Your task to perform on an android device: Clear all items from cart on walmart.com. Add usb-c to the cart on walmart.com Image 0: 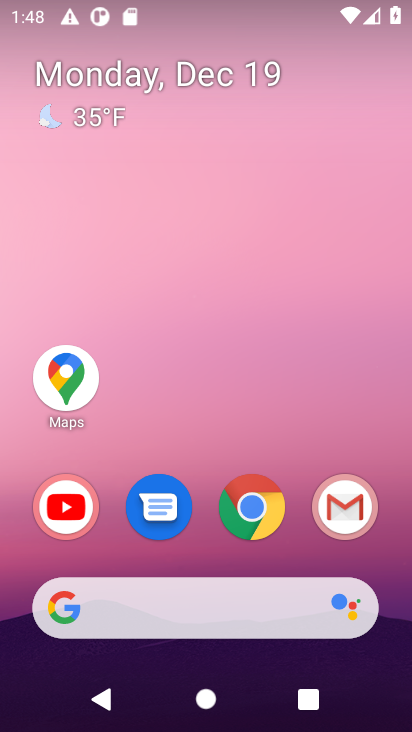
Step 0: click (247, 507)
Your task to perform on an android device: Clear all items from cart on walmart.com. Add usb-c to the cart on walmart.com Image 1: 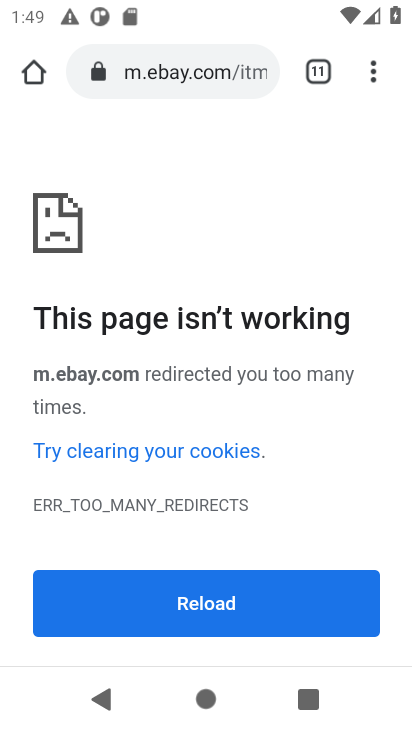
Step 1: click (164, 67)
Your task to perform on an android device: Clear all items from cart on walmart.com. Add usb-c to the cart on walmart.com Image 2: 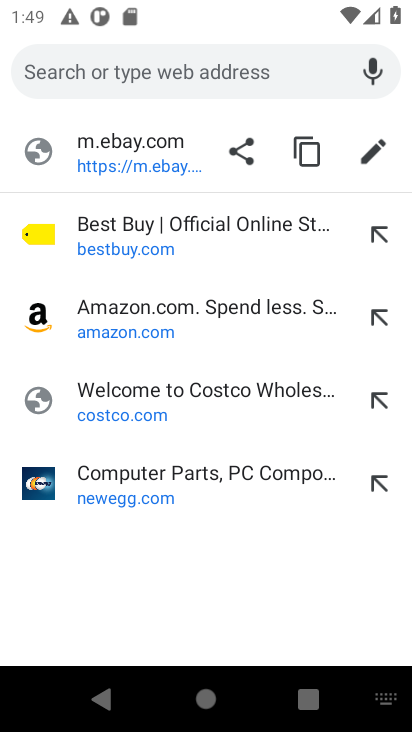
Step 2: type "walmart.com"
Your task to perform on an android device: Clear all items from cart on walmart.com. Add usb-c to the cart on walmart.com Image 3: 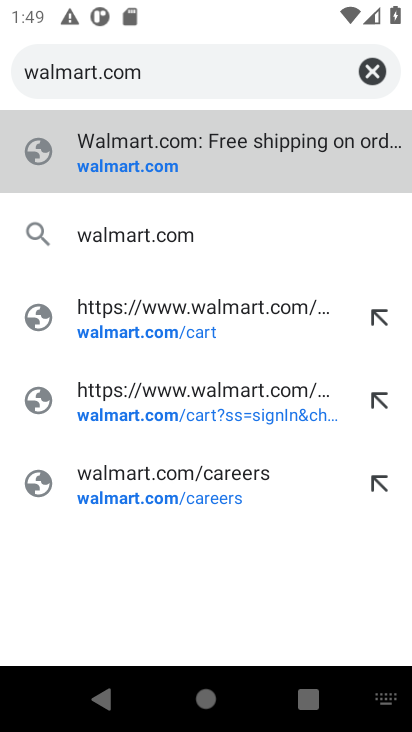
Step 3: click (121, 159)
Your task to perform on an android device: Clear all items from cart on walmart.com. Add usb-c to the cart on walmart.com Image 4: 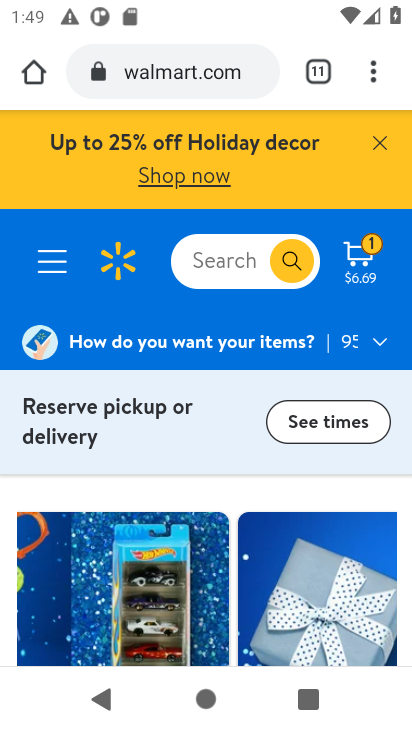
Step 4: click (372, 258)
Your task to perform on an android device: Clear all items from cart on walmart.com. Add usb-c to the cart on walmart.com Image 5: 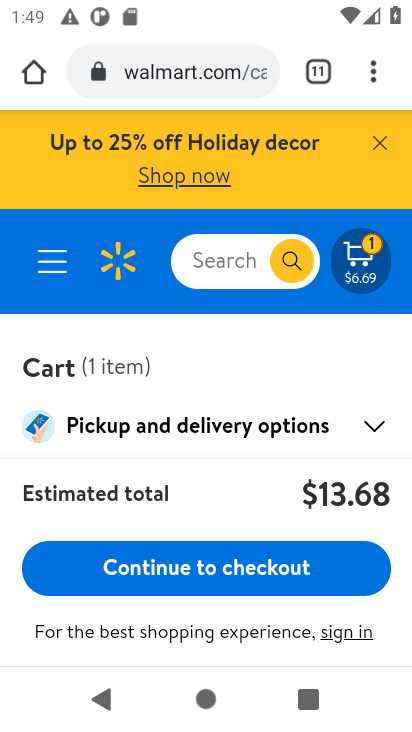
Step 5: drag from (226, 405) to (208, 182)
Your task to perform on an android device: Clear all items from cart on walmart.com. Add usb-c to the cart on walmart.com Image 6: 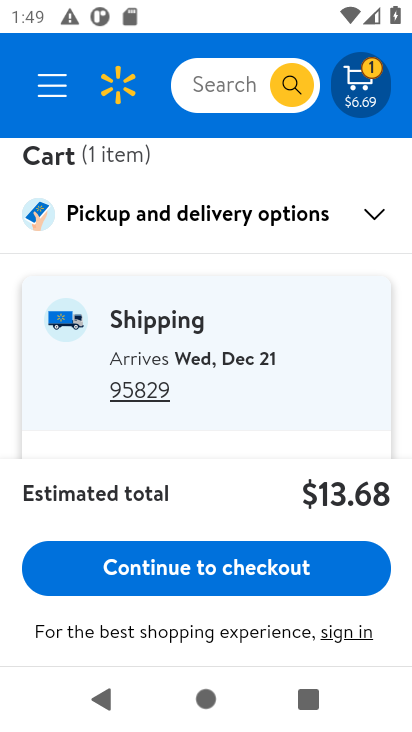
Step 6: drag from (192, 291) to (192, 152)
Your task to perform on an android device: Clear all items from cart on walmart.com. Add usb-c to the cart on walmart.com Image 7: 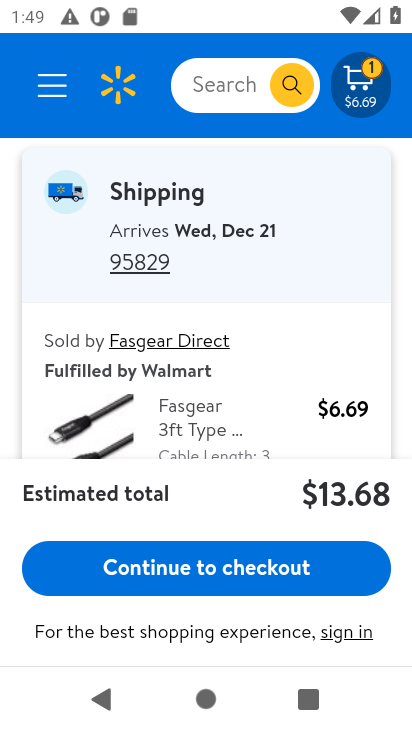
Step 7: drag from (168, 342) to (150, 151)
Your task to perform on an android device: Clear all items from cart on walmart.com. Add usb-c to the cart on walmart.com Image 8: 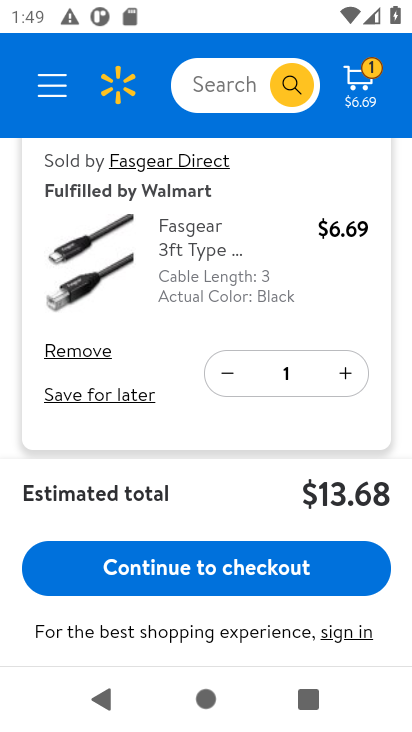
Step 8: click (76, 354)
Your task to perform on an android device: Clear all items from cart on walmart.com. Add usb-c to the cart on walmart.com Image 9: 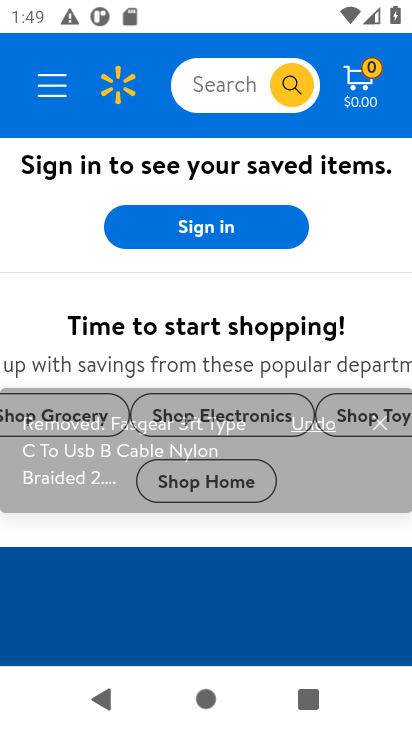
Step 9: drag from (256, 272) to (252, 388)
Your task to perform on an android device: Clear all items from cart on walmart.com. Add usb-c to the cart on walmart.com Image 10: 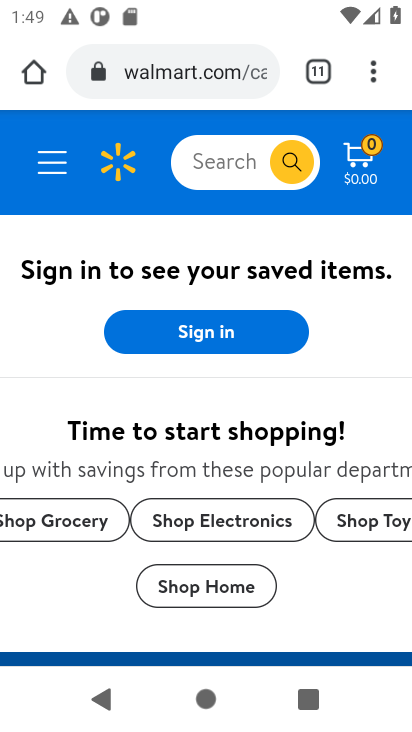
Step 10: click (206, 157)
Your task to perform on an android device: Clear all items from cart on walmart.com. Add usb-c to the cart on walmart.com Image 11: 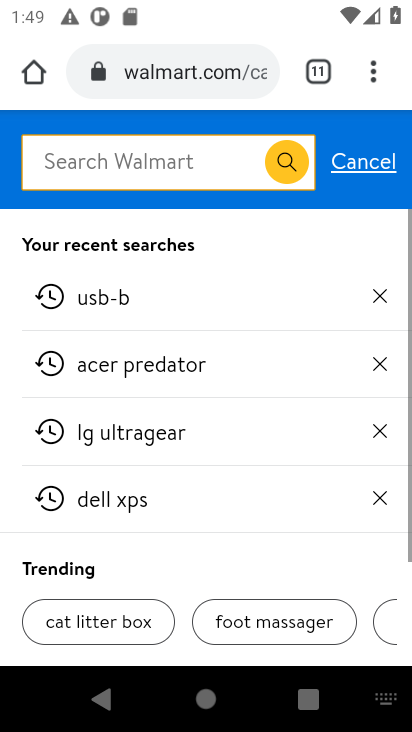
Step 11: type "usb-c"
Your task to perform on an android device: Clear all items from cart on walmart.com. Add usb-c to the cart on walmart.com Image 12: 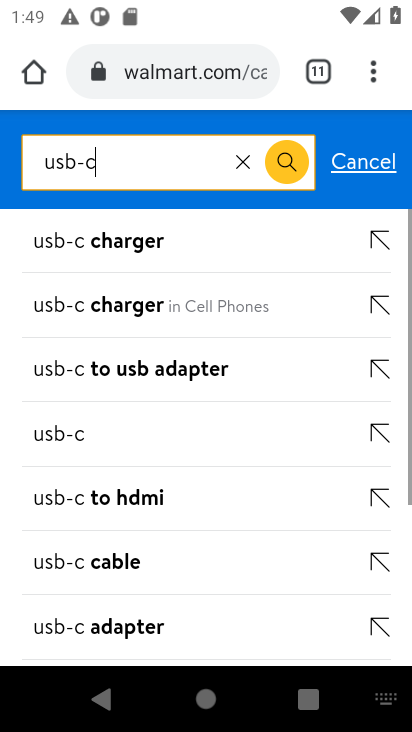
Step 12: click (58, 443)
Your task to perform on an android device: Clear all items from cart on walmart.com. Add usb-c to the cart on walmart.com Image 13: 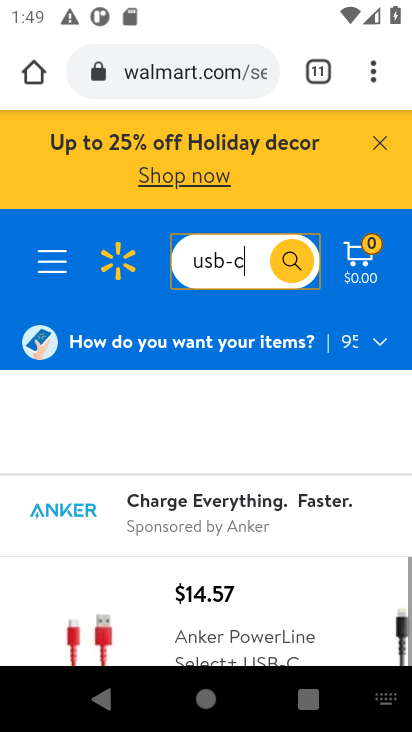
Step 13: drag from (193, 518) to (176, 338)
Your task to perform on an android device: Clear all items from cart on walmart.com. Add usb-c to the cart on walmart.com Image 14: 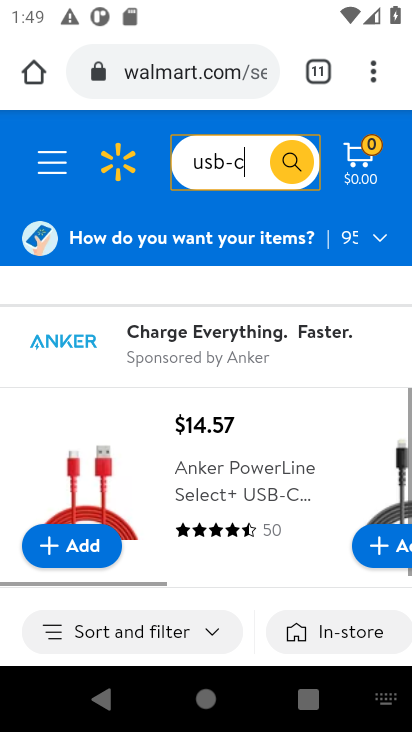
Step 14: drag from (191, 487) to (184, 311)
Your task to perform on an android device: Clear all items from cart on walmart.com. Add usb-c to the cart on walmart.com Image 15: 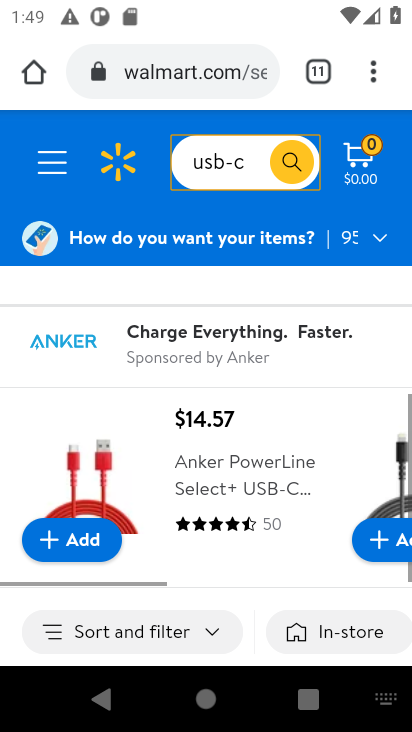
Step 15: drag from (208, 498) to (183, 212)
Your task to perform on an android device: Clear all items from cart on walmart.com. Add usb-c to the cart on walmart.com Image 16: 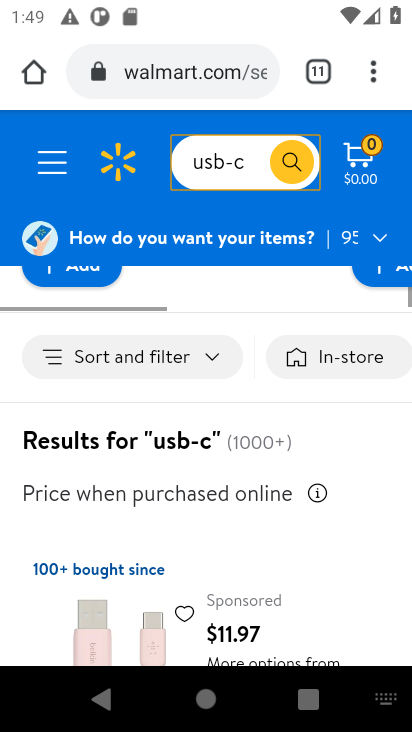
Step 16: drag from (187, 411) to (167, 211)
Your task to perform on an android device: Clear all items from cart on walmart.com. Add usb-c to the cart on walmart.com Image 17: 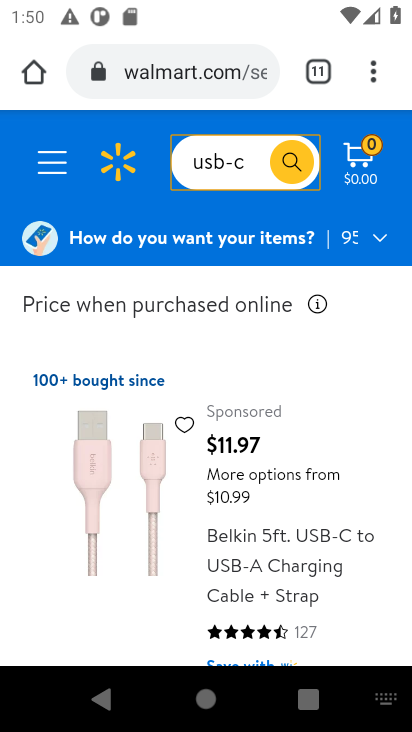
Step 17: drag from (193, 475) to (189, 251)
Your task to perform on an android device: Clear all items from cart on walmart.com. Add usb-c to the cart on walmart.com Image 18: 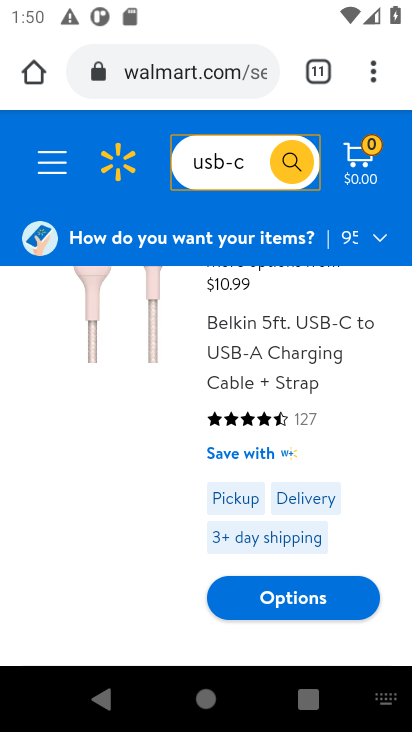
Step 18: click (260, 367)
Your task to perform on an android device: Clear all items from cart on walmart.com. Add usb-c to the cart on walmart.com Image 19: 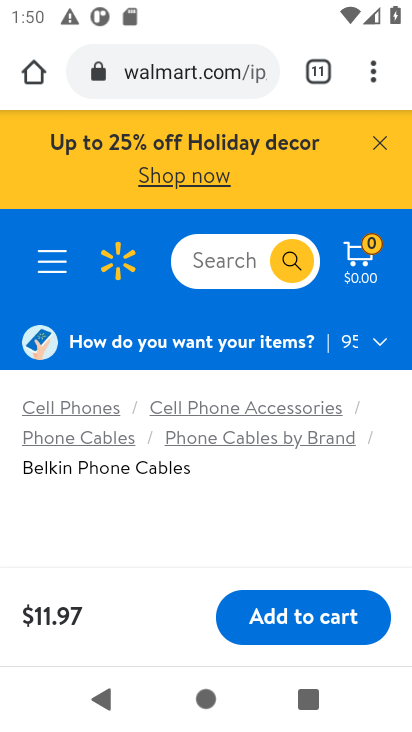
Step 19: click (287, 619)
Your task to perform on an android device: Clear all items from cart on walmart.com. Add usb-c to the cart on walmart.com Image 20: 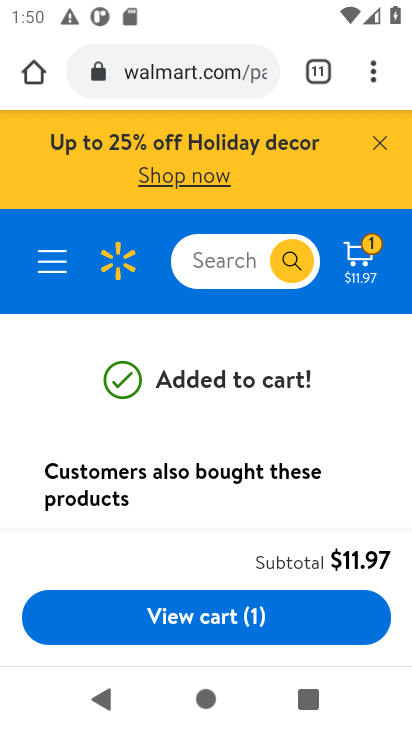
Step 20: task complete